Your task to perform on an android device: View the shopping cart on costco. Search for lg ultragear on costco, select the first entry, and add it to the cart. Image 0: 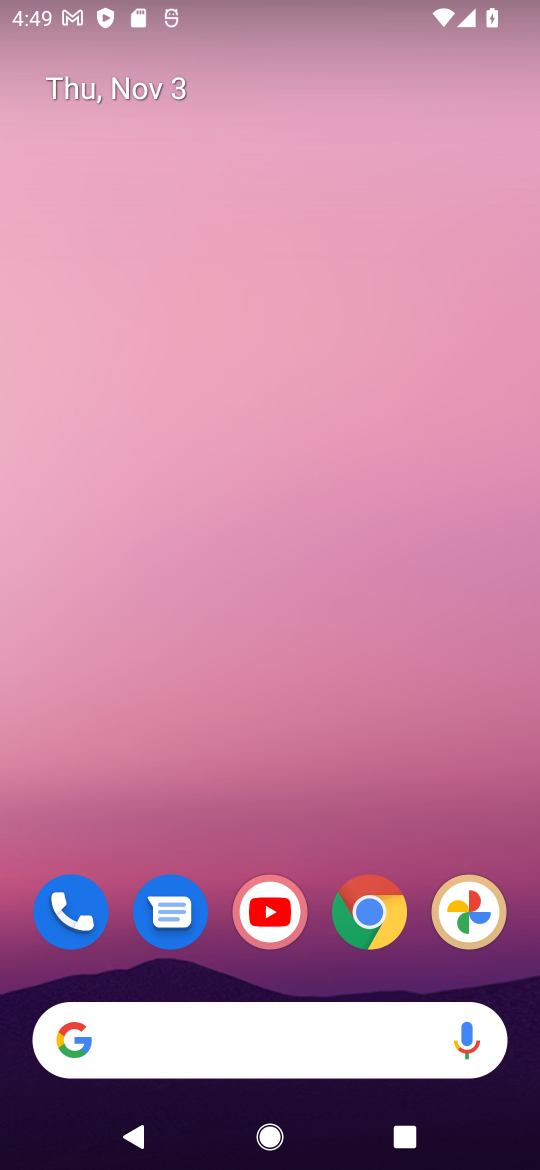
Step 0: click (377, 940)
Your task to perform on an android device: View the shopping cart on costco. Search for lg ultragear on costco, select the first entry, and add it to the cart. Image 1: 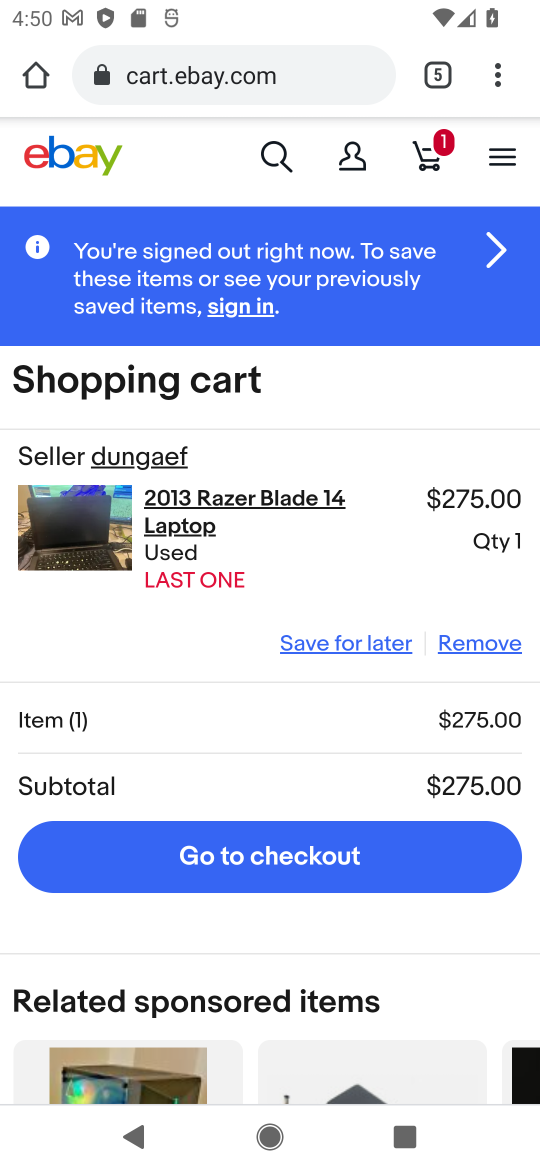
Step 1: click (431, 70)
Your task to perform on an android device: View the shopping cart on costco. Search for lg ultragear on costco, select the first entry, and add it to the cart. Image 2: 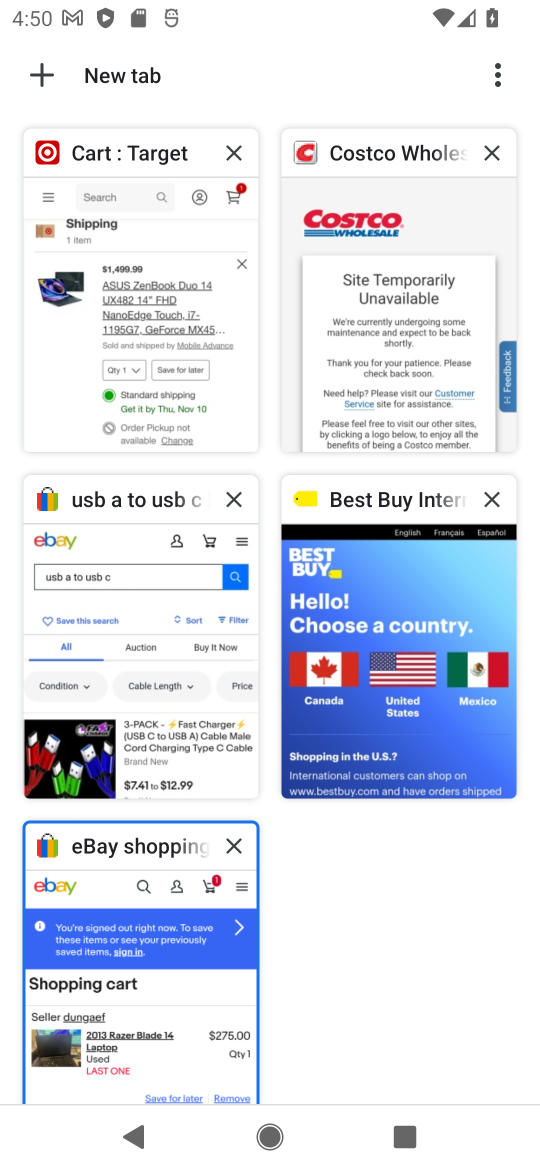
Step 2: click (388, 265)
Your task to perform on an android device: View the shopping cart on costco. Search for lg ultragear on costco, select the first entry, and add it to the cart. Image 3: 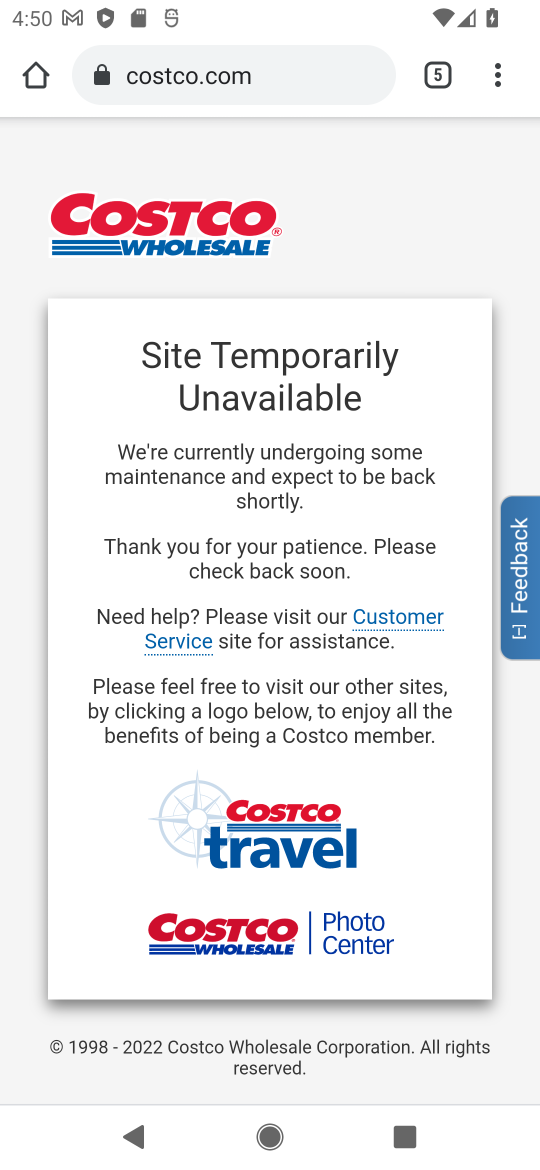
Step 3: click (385, 213)
Your task to perform on an android device: View the shopping cart on costco. Search for lg ultragear on costco, select the first entry, and add it to the cart. Image 4: 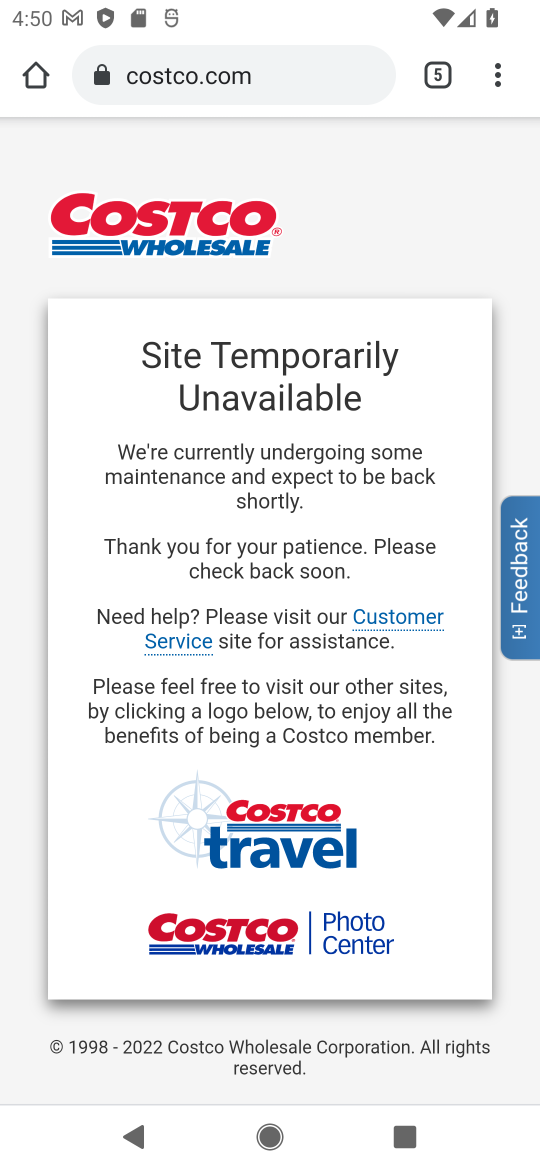
Step 4: task complete